Your task to perform on an android device: toggle translation in the chrome app Image 0: 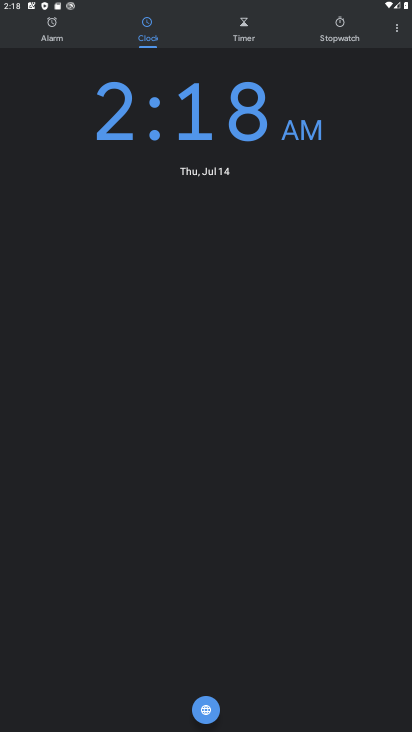
Step 0: press home button
Your task to perform on an android device: toggle translation in the chrome app Image 1: 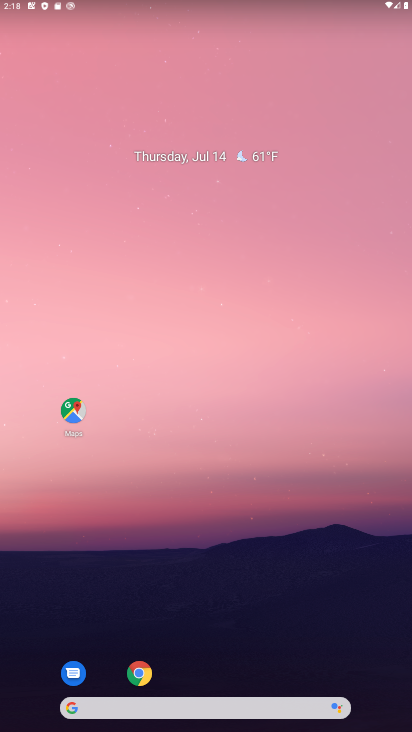
Step 1: click (146, 671)
Your task to perform on an android device: toggle translation in the chrome app Image 2: 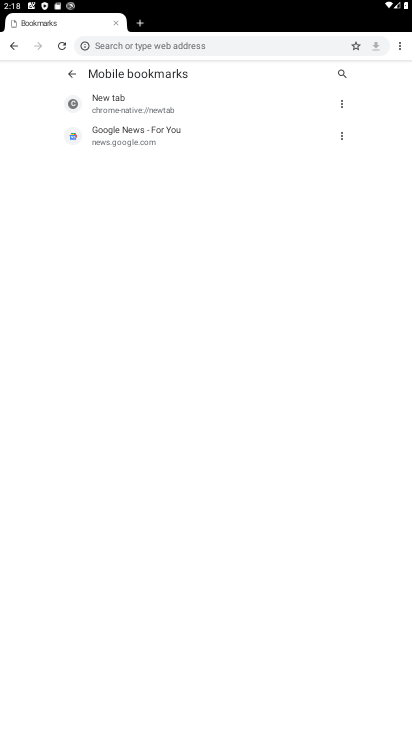
Step 2: click (396, 45)
Your task to perform on an android device: toggle translation in the chrome app Image 3: 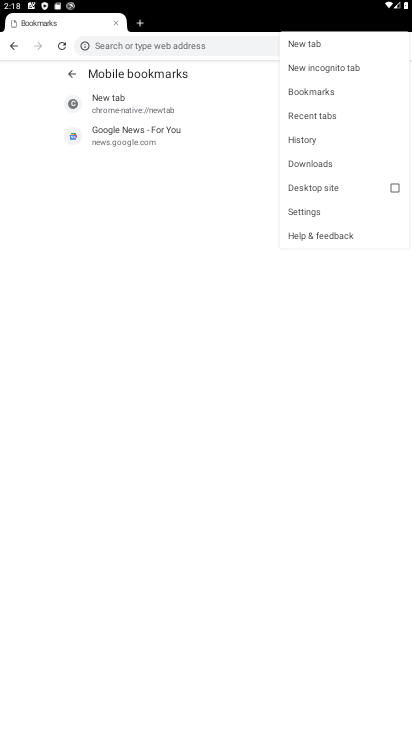
Step 3: click (317, 216)
Your task to perform on an android device: toggle translation in the chrome app Image 4: 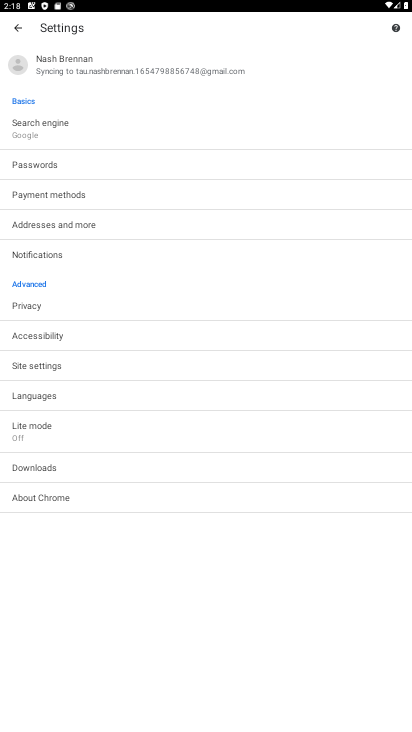
Step 4: click (54, 398)
Your task to perform on an android device: toggle translation in the chrome app Image 5: 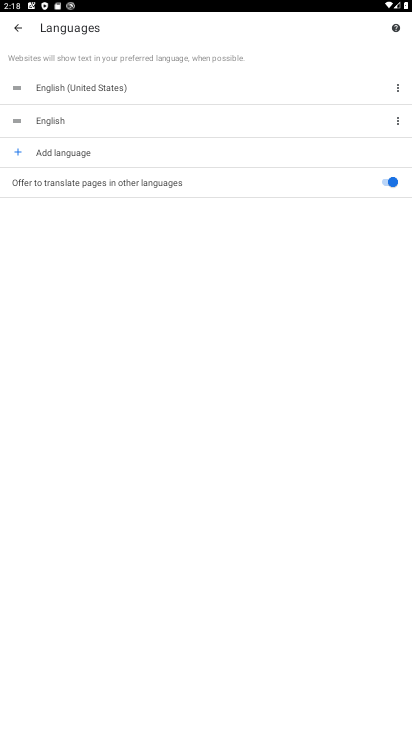
Step 5: click (389, 175)
Your task to perform on an android device: toggle translation in the chrome app Image 6: 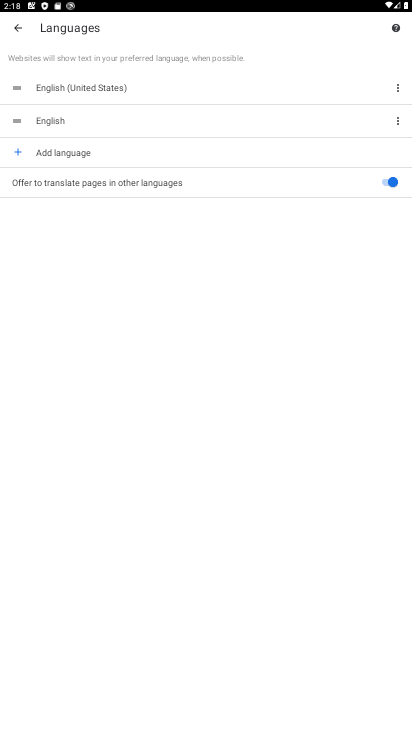
Step 6: click (389, 175)
Your task to perform on an android device: toggle translation in the chrome app Image 7: 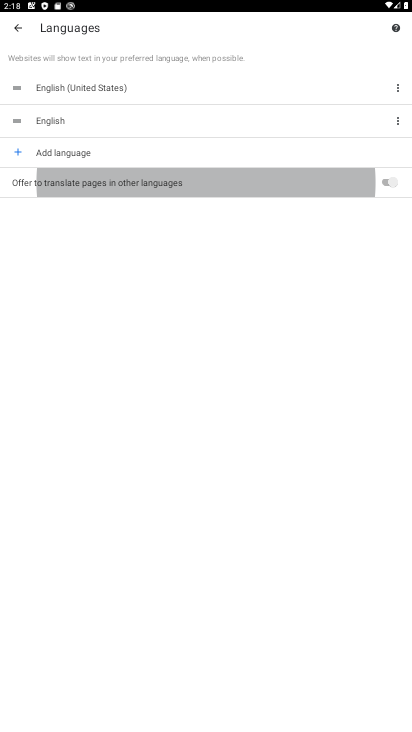
Step 7: click (389, 175)
Your task to perform on an android device: toggle translation in the chrome app Image 8: 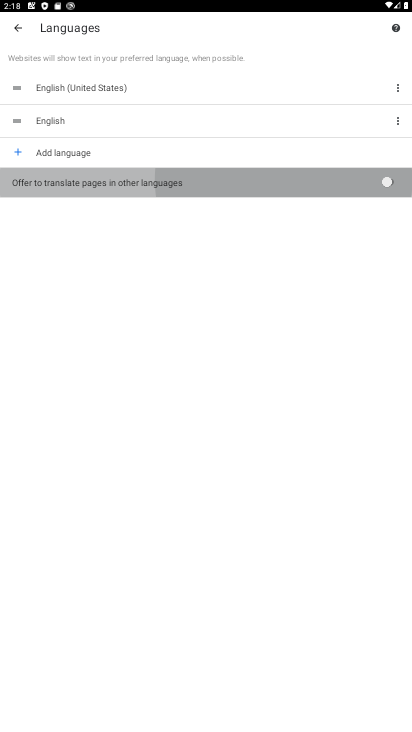
Step 8: click (389, 175)
Your task to perform on an android device: toggle translation in the chrome app Image 9: 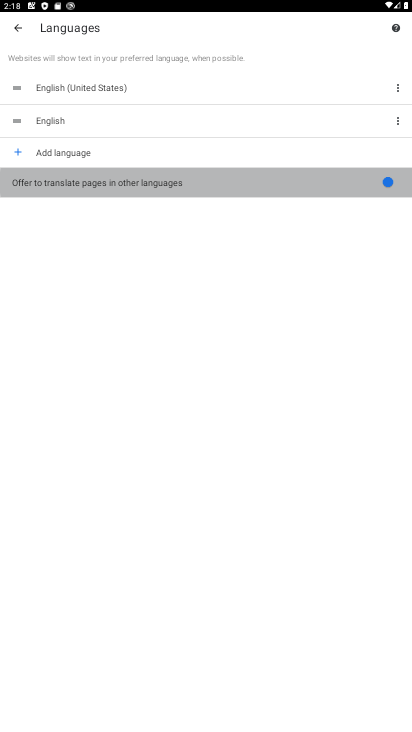
Step 9: click (389, 175)
Your task to perform on an android device: toggle translation in the chrome app Image 10: 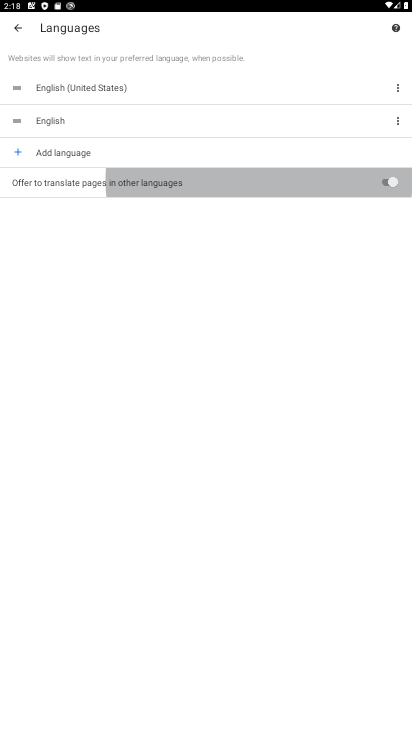
Step 10: click (389, 175)
Your task to perform on an android device: toggle translation in the chrome app Image 11: 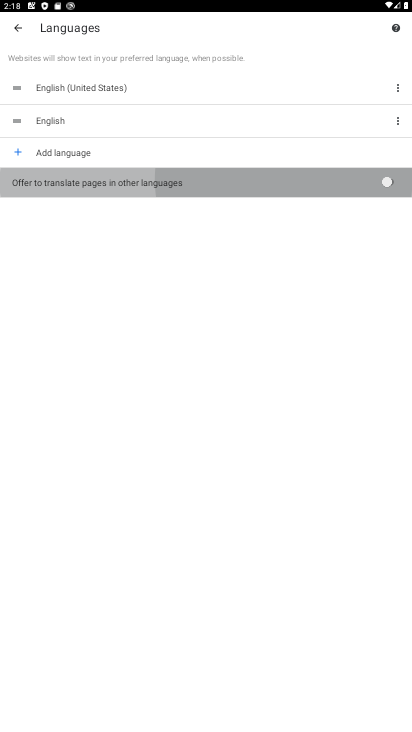
Step 11: click (389, 175)
Your task to perform on an android device: toggle translation in the chrome app Image 12: 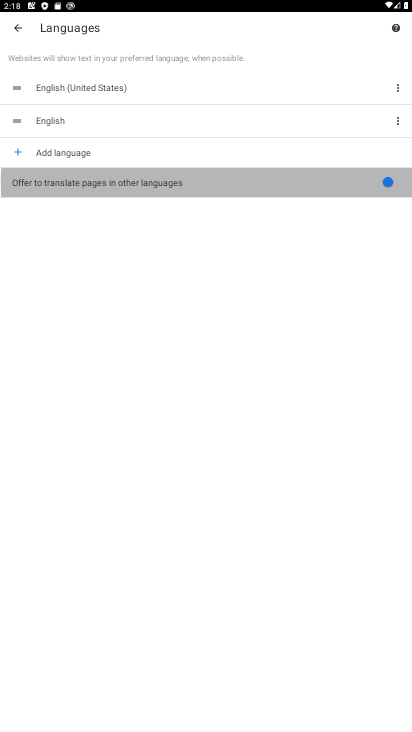
Step 12: click (389, 175)
Your task to perform on an android device: toggle translation in the chrome app Image 13: 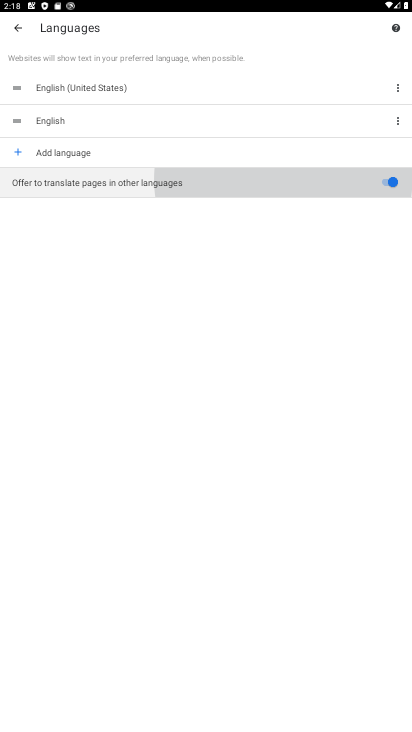
Step 13: click (389, 175)
Your task to perform on an android device: toggle translation in the chrome app Image 14: 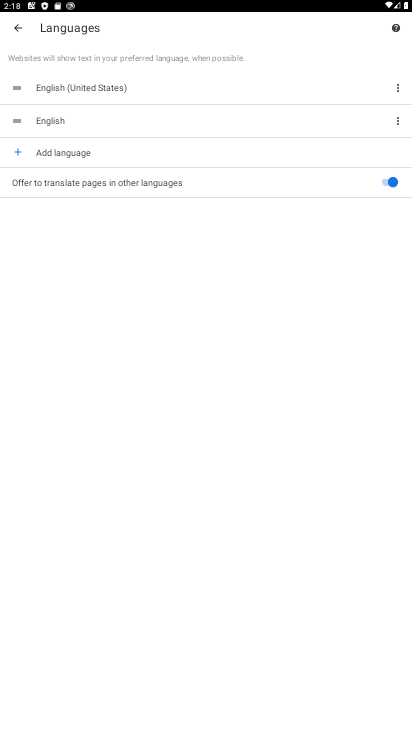
Step 14: task complete